Your task to perform on an android device: Show me popular videos on Youtube Image 0: 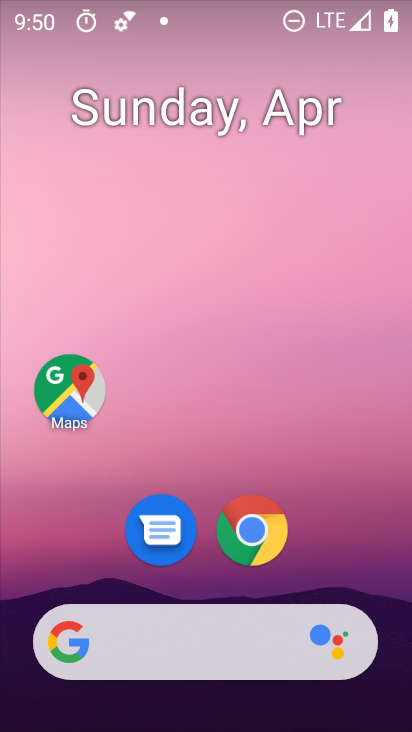
Step 0: drag from (393, 590) to (390, 16)
Your task to perform on an android device: Show me popular videos on Youtube Image 1: 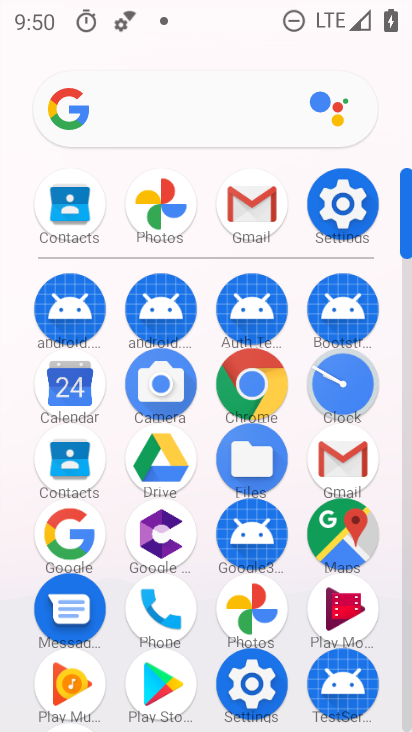
Step 1: click (402, 612)
Your task to perform on an android device: Show me popular videos on Youtube Image 2: 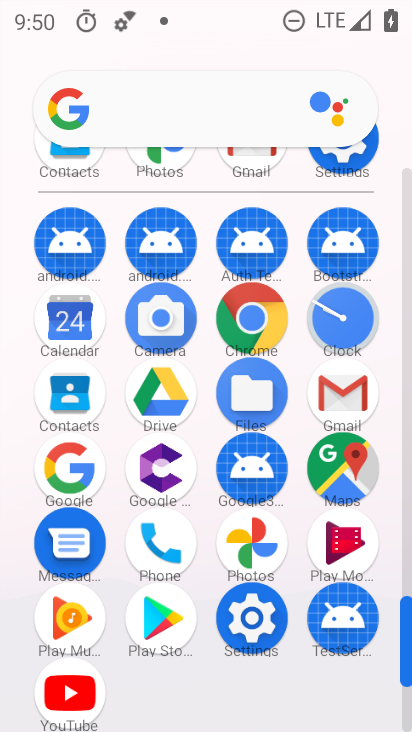
Step 2: click (73, 691)
Your task to perform on an android device: Show me popular videos on Youtube Image 3: 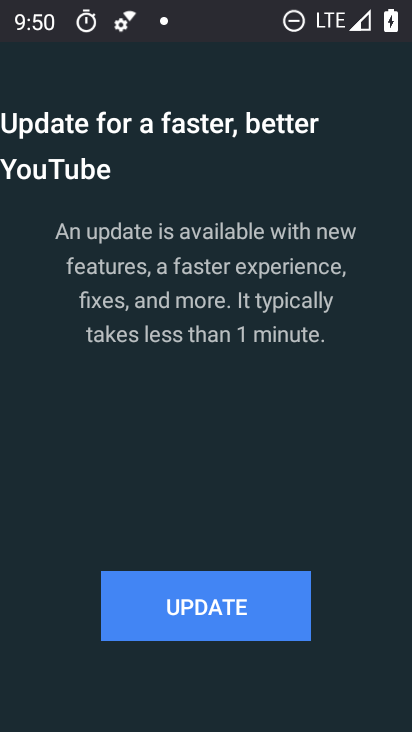
Step 3: click (214, 625)
Your task to perform on an android device: Show me popular videos on Youtube Image 4: 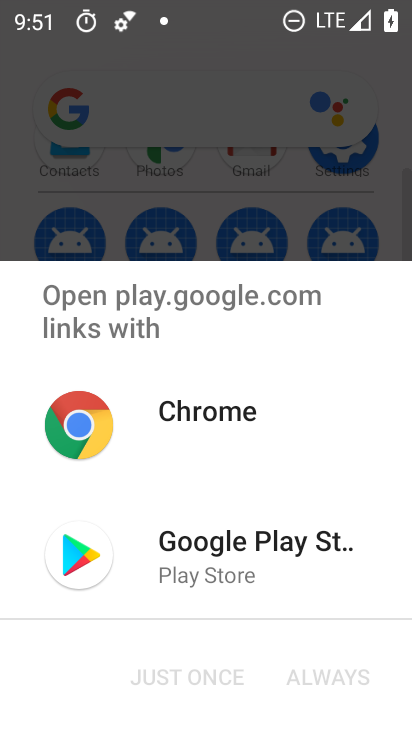
Step 4: click (210, 577)
Your task to perform on an android device: Show me popular videos on Youtube Image 5: 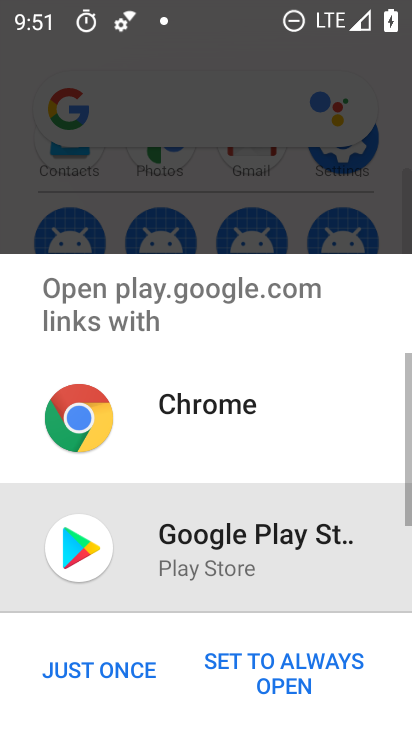
Step 5: click (90, 674)
Your task to perform on an android device: Show me popular videos on Youtube Image 6: 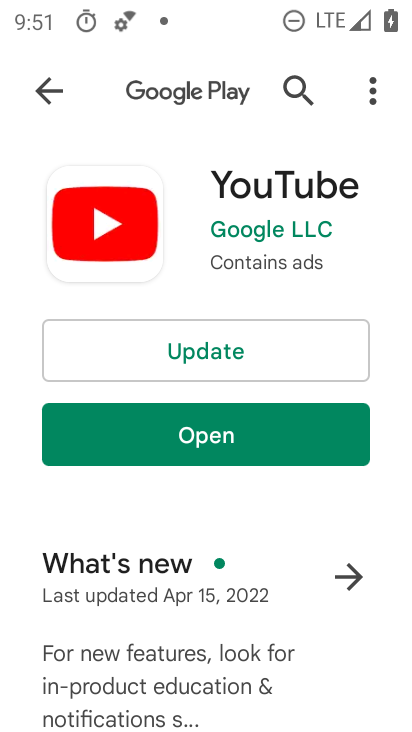
Step 6: click (212, 343)
Your task to perform on an android device: Show me popular videos on Youtube Image 7: 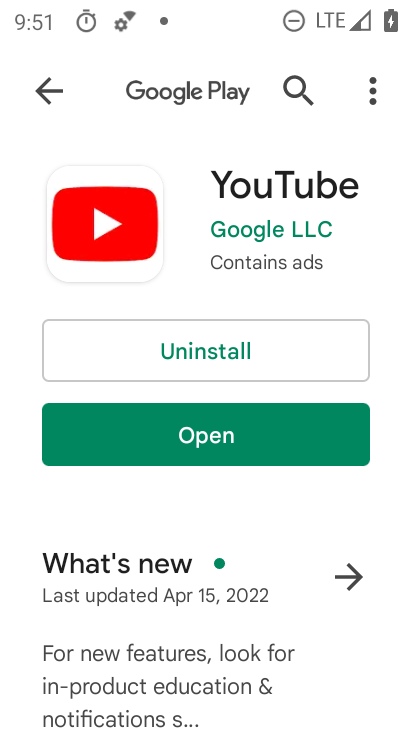
Step 7: click (199, 449)
Your task to perform on an android device: Show me popular videos on Youtube Image 8: 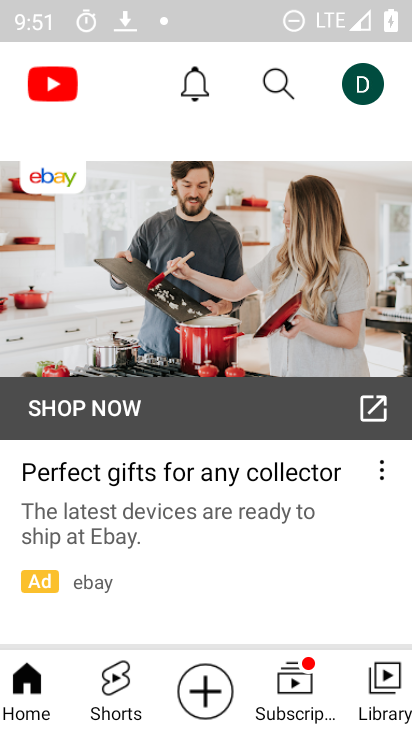
Step 8: task complete